Your task to perform on an android device: turn on showing notifications on the lock screen Image 0: 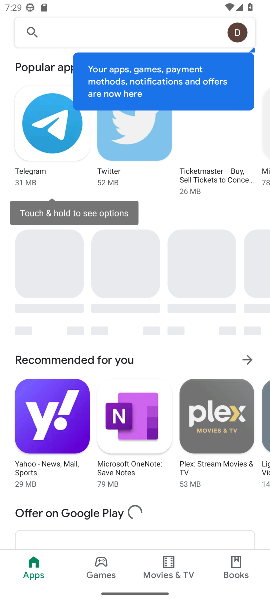
Step 0: press home button
Your task to perform on an android device: turn on showing notifications on the lock screen Image 1: 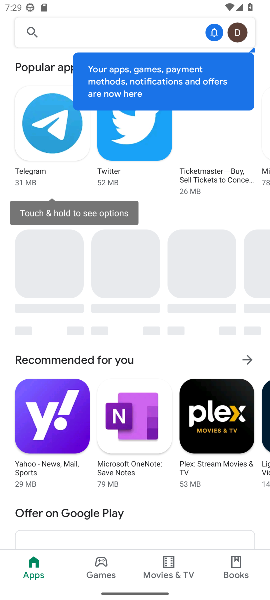
Step 1: press home button
Your task to perform on an android device: turn on showing notifications on the lock screen Image 2: 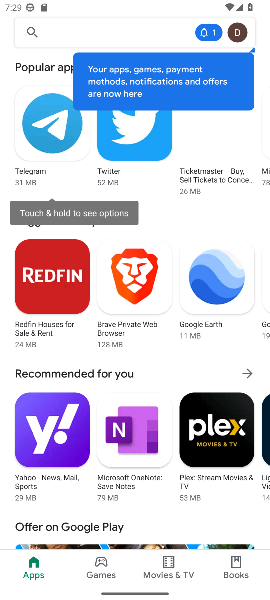
Step 2: press home button
Your task to perform on an android device: turn on showing notifications on the lock screen Image 3: 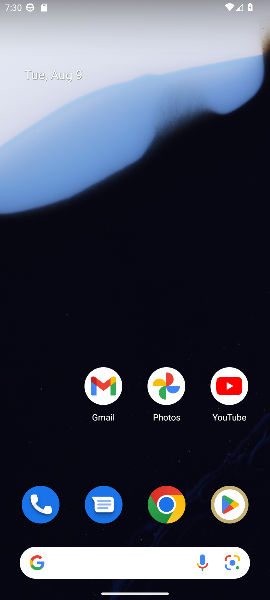
Step 3: drag from (59, 407) to (92, 93)
Your task to perform on an android device: turn on showing notifications on the lock screen Image 4: 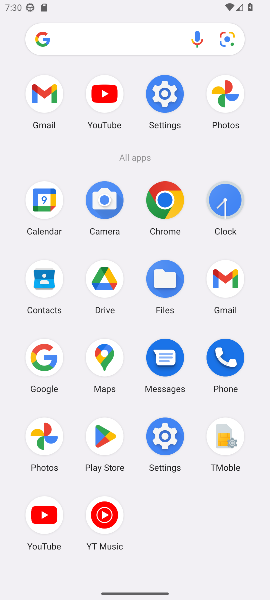
Step 4: click (175, 89)
Your task to perform on an android device: turn on showing notifications on the lock screen Image 5: 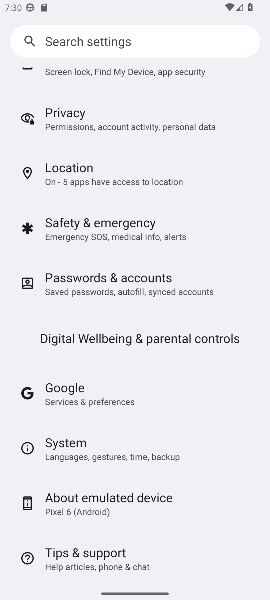
Step 5: drag from (65, 128) to (177, 586)
Your task to perform on an android device: turn on showing notifications on the lock screen Image 6: 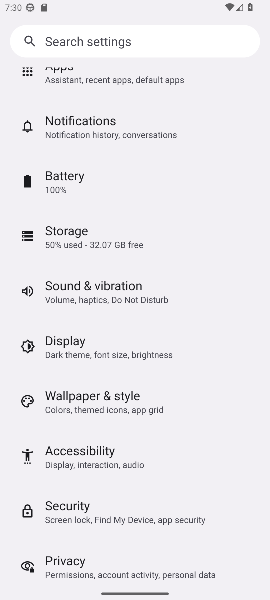
Step 6: click (87, 134)
Your task to perform on an android device: turn on showing notifications on the lock screen Image 7: 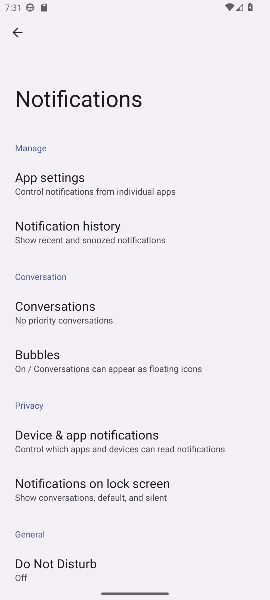
Step 7: click (107, 514)
Your task to perform on an android device: turn on showing notifications on the lock screen Image 8: 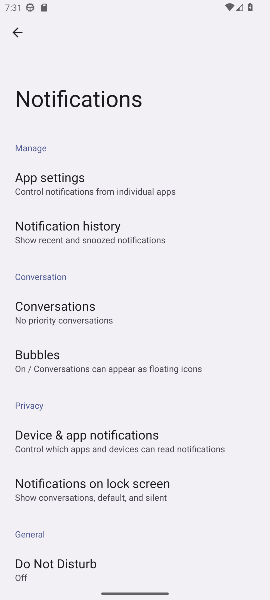
Step 8: click (103, 496)
Your task to perform on an android device: turn on showing notifications on the lock screen Image 9: 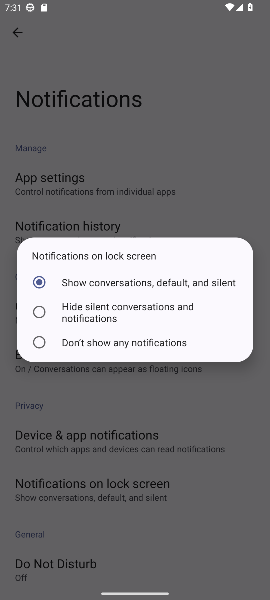
Step 9: click (54, 277)
Your task to perform on an android device: turn on showing notifications on the lock screen Image 10: 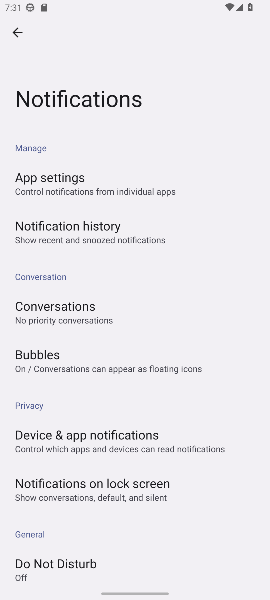
Step 10: task complete